Your task to perform on an android device: change alarm snooze length Image 0: 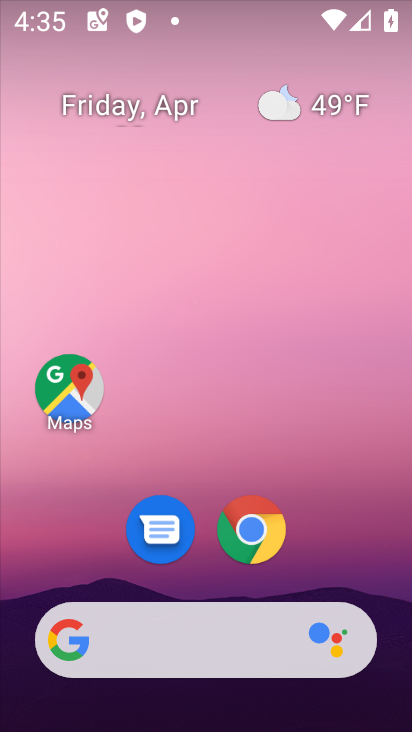
Step 0: drag from (237, 718) to (228, 169)
Your task to perform on an android device: change alarm snooze length Image 1: 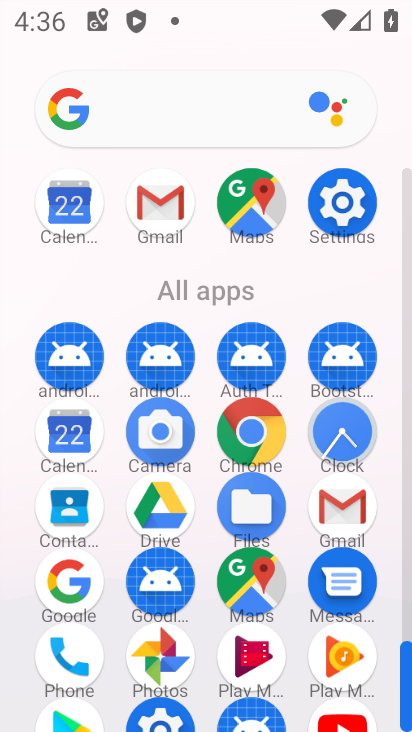
Step 1: click (343, 426)
Your task to perform on an android device: change alarm snooze length Image 2: 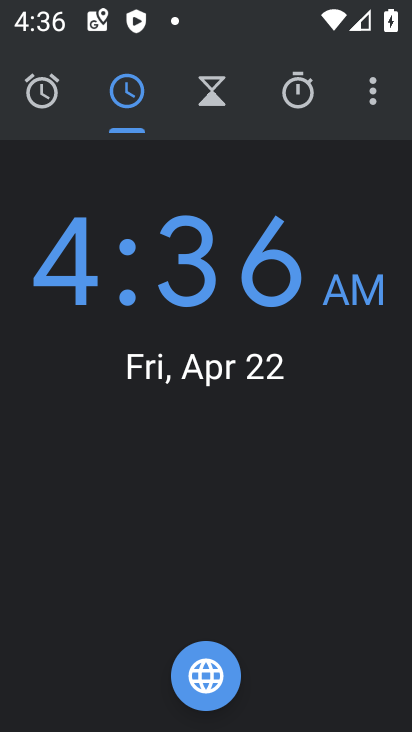
Step 2: drag from (373, 92) to (240, 187)
Your task to perform on an android device: change alarm snooze length Image 3: 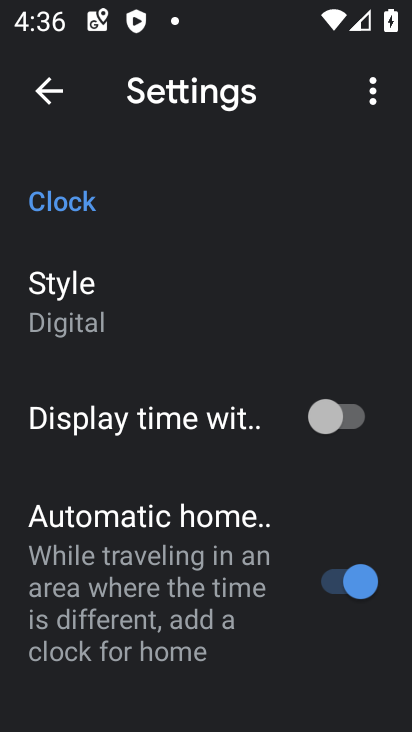
Step 3: drag from (128, 574) to (91, 159)
Your task to perform on an android device: change alarm snooze length Image 4: 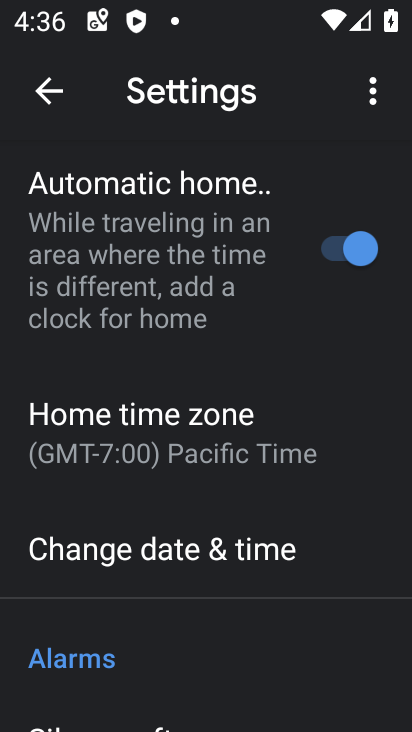
Step 4: drag from (128, 595) to (119, 180)
Your task to perform on an android device: change alarm snooze length Image 5: 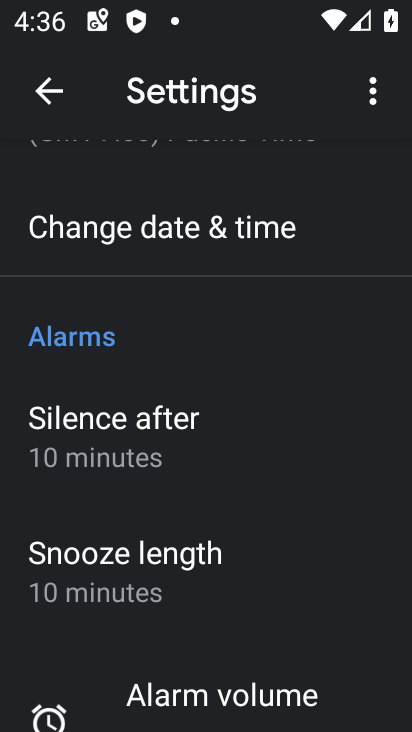
Step 5: click (142, 566)
Your task to perform on an android device: change alarm snooze length Image 6: 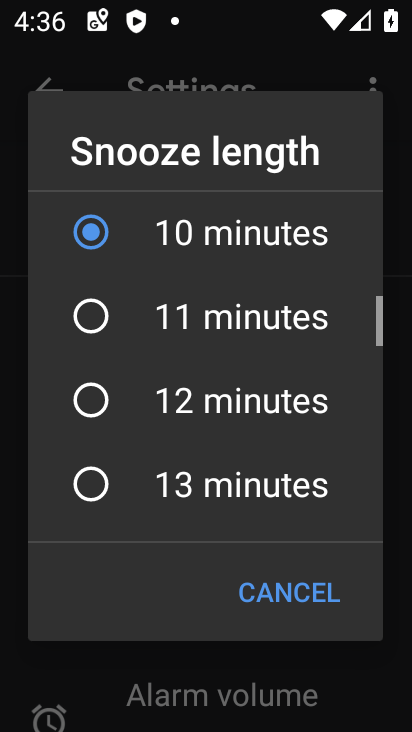
Step 6: click (100, 477)
Your task to perform on an android device: change alarm snooze length Image 7: 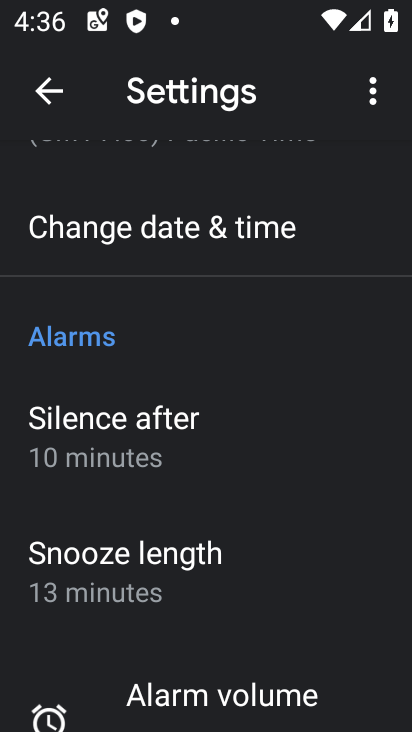
Step 7: task complete